Your task to perform on an android device: open chrome and create a bookmark for the current page Image 0: 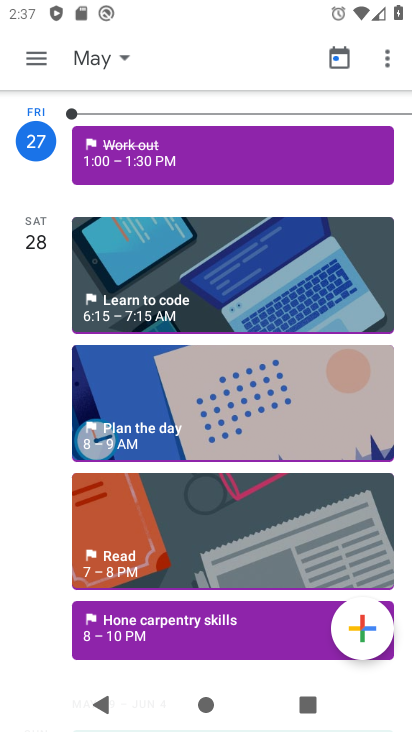
Step 0: press home button
Your task to perform on an android device: open chrome and create a bookmark for the current page Image 1: 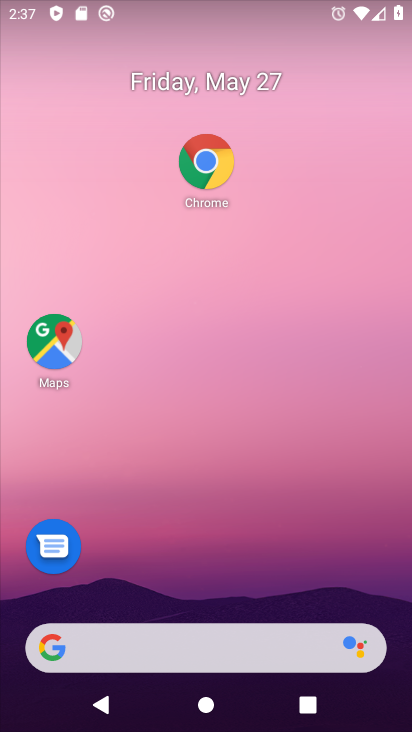
Step 1: click (209, 159)
Your task to perform on an android device: open chrome and create a bookmark for the current page Image 2: 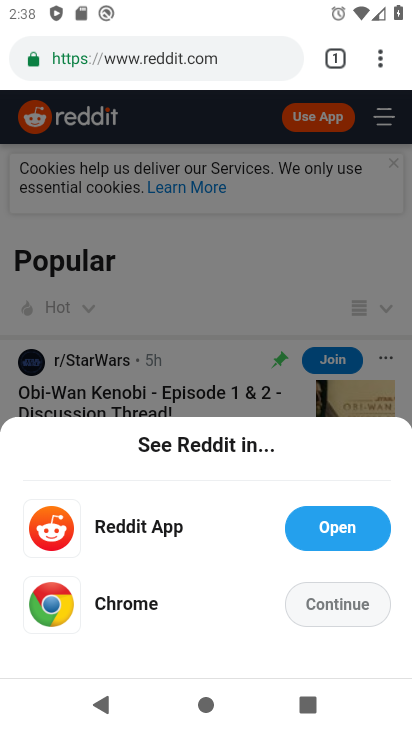
Step 2: click (378, 54)
Your task to perform on an android device: open chrome and create a bookmark for the current page Image 3: 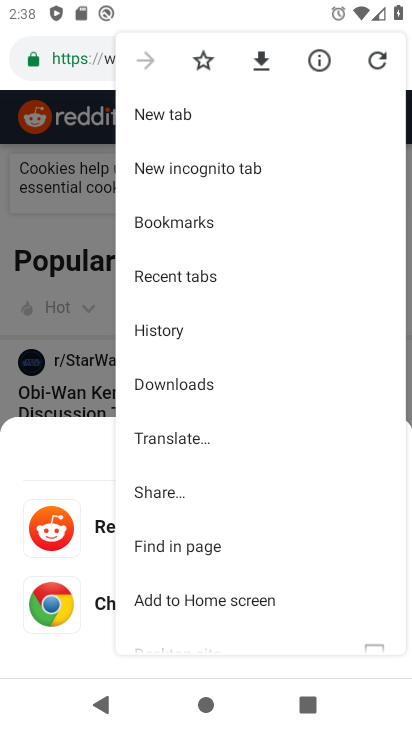
Step 3: click (204, 57)
Your task to perform on an android device: open chrome and create a bookmark for the current page Image 4: 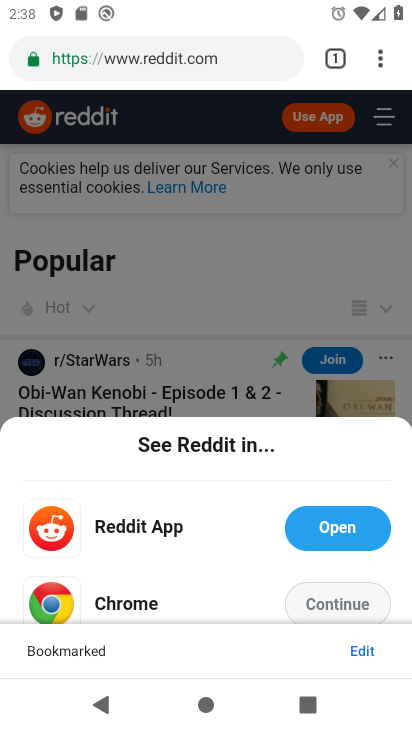
Step 4: task complete